Your task to perform on an android device: Search for bose quietcomfort 35 on bestbuy, select the first entry, add it to the cart, then select checkout. Image 0: 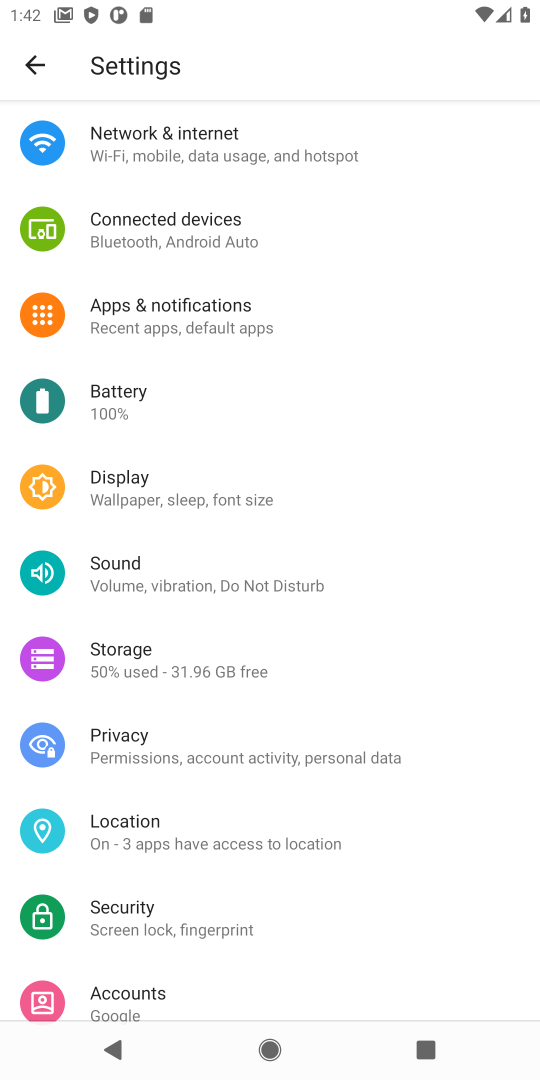
Step 0: press home button
Your task to perform on an android device: Search for bose quietcomfort 35 on bestbuy, select the first entry, add it to the cart, then select checkout. Image 1: 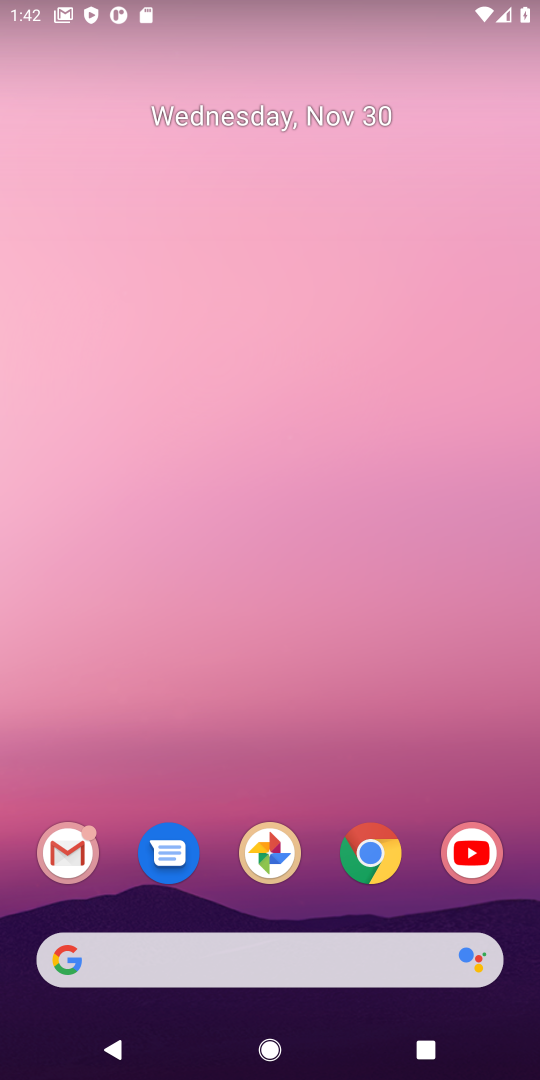
Step 1: click (370, 849)
Your task to perform on an android device: Search for bose quietcomfort 35 on bestbuy, select the first entry, add it to the cart, then select checkout. Image 2: 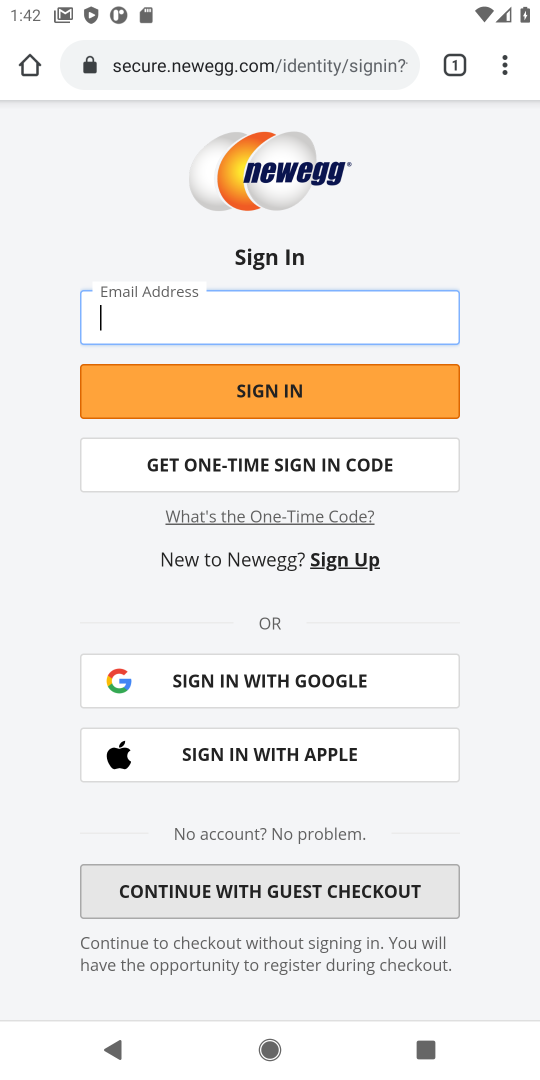
Step 2: click (203, 65)
Your task to perform on an android device: Search for bose quietcomfort 35 on bestbuy, select the first entry, add it to the cart, then select checkout. Image 3: 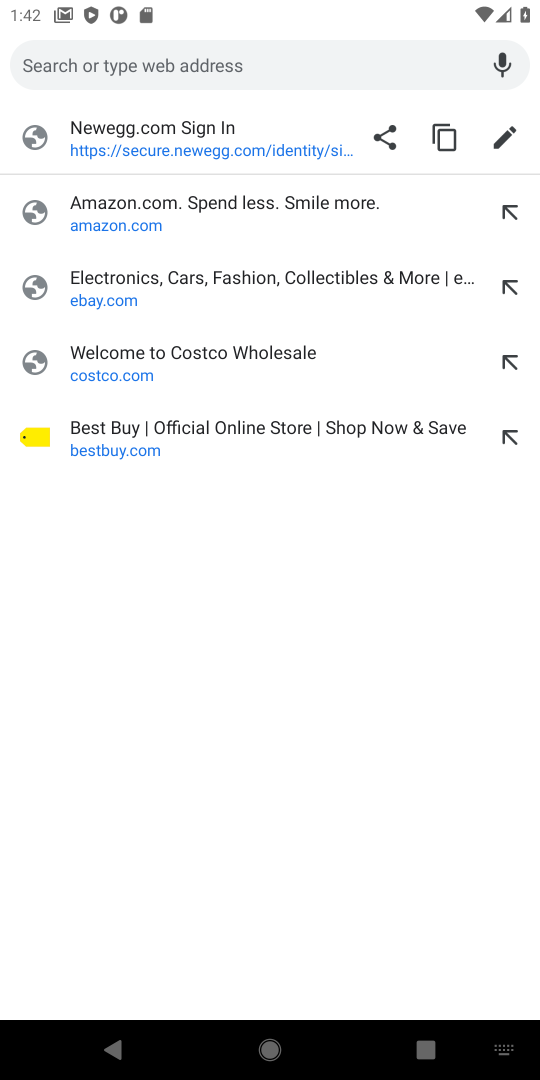
Step 3: click (96, 436)
Your task to perform on an android device: Search for bose quietcomfort 35 on bestbuy, select the first entry, add it to the cart, then select checkout. Image 4: 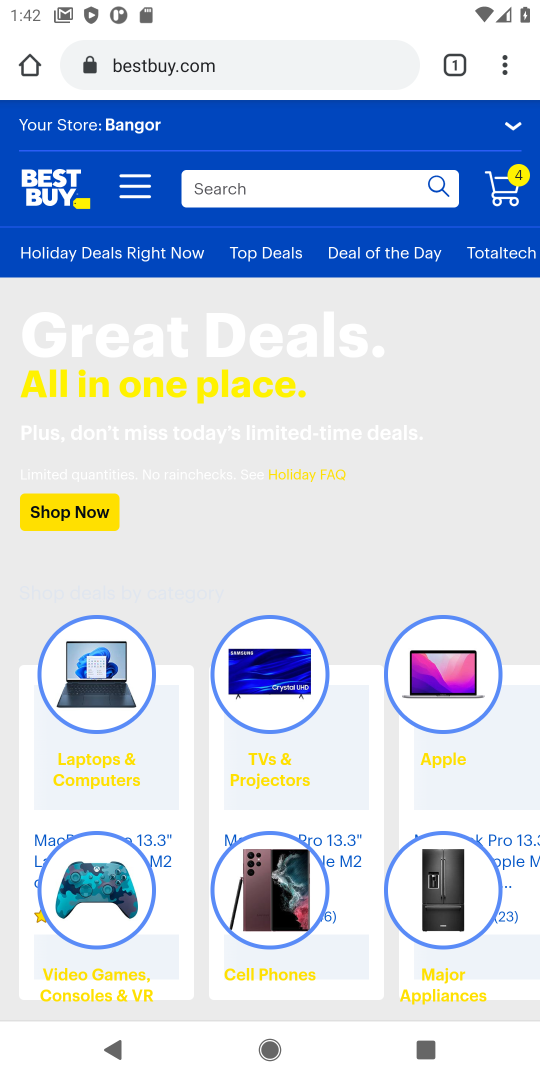
Step 4: click (252, 186)
Your task to perform on an android device: Search for bose quietcomfort 35 on bestbuy, select the first entry, add it to the cart, then select checkout. Image 5: 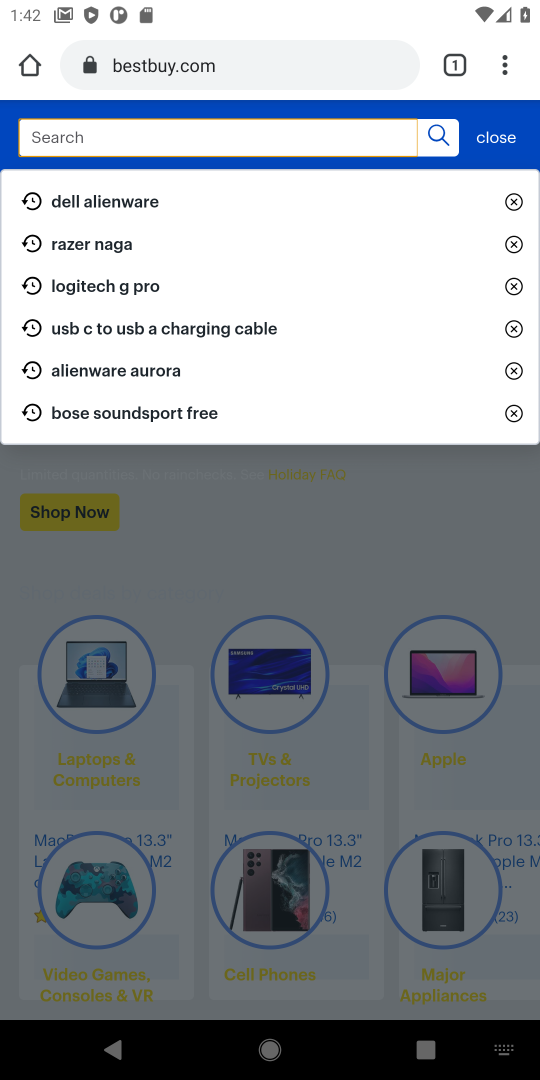
Step 5: type "bose quietcomfort 35"
Your task to perform on an android device: Search for bose quietcomfort 35 on bestbuy, select the first entry, add it to the cart, then select checkout. Image 6: 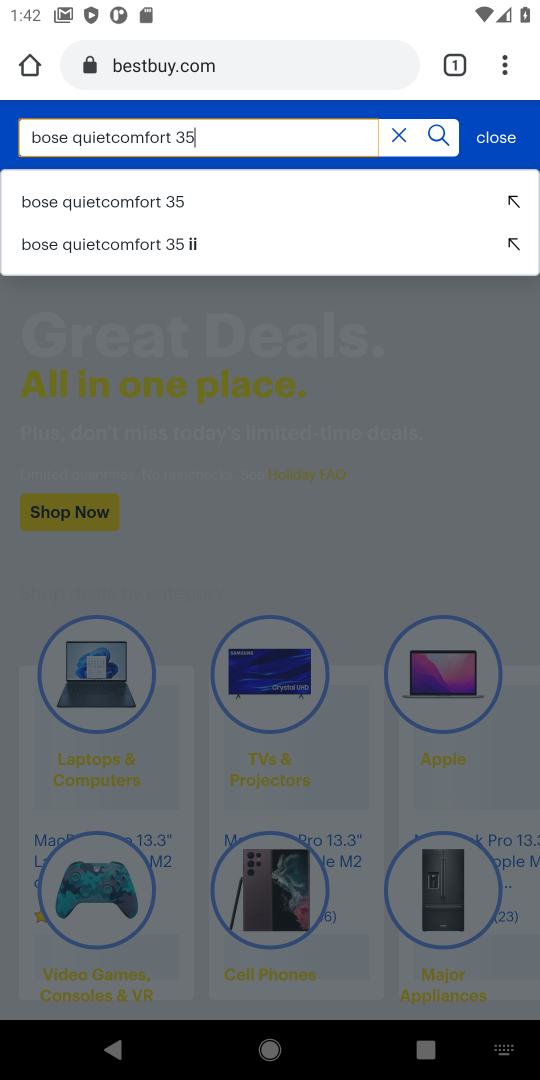
Step 6: click (128, 203)
Your task to perform on an android device: Search for bose quietcomfort 35 on bestbuy, select the first entry, add it to the cart, then select checkout. Image 7: 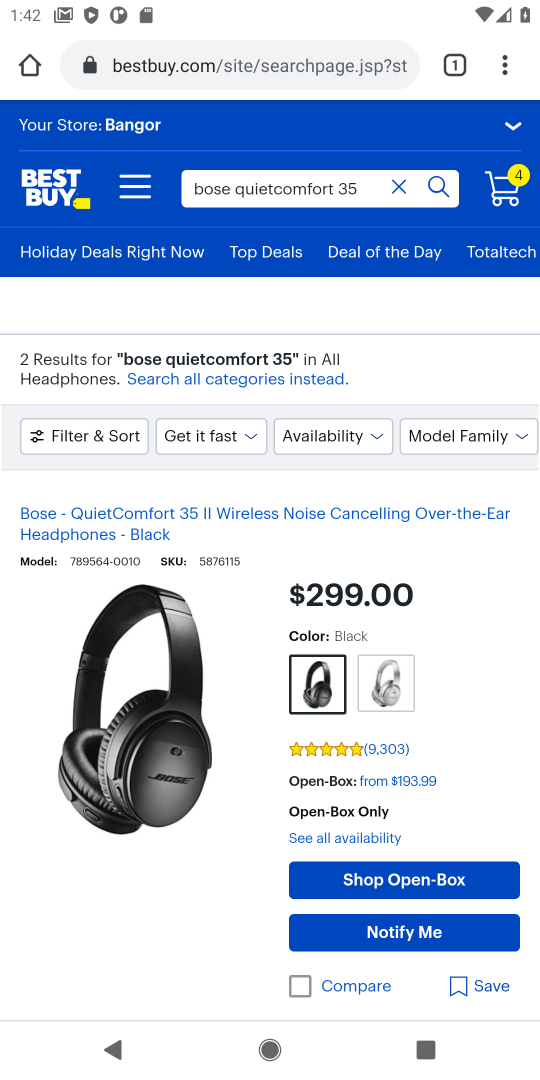
Step 7: task complete